Your task to perform on an android device: Open accessibility settings Image 0: 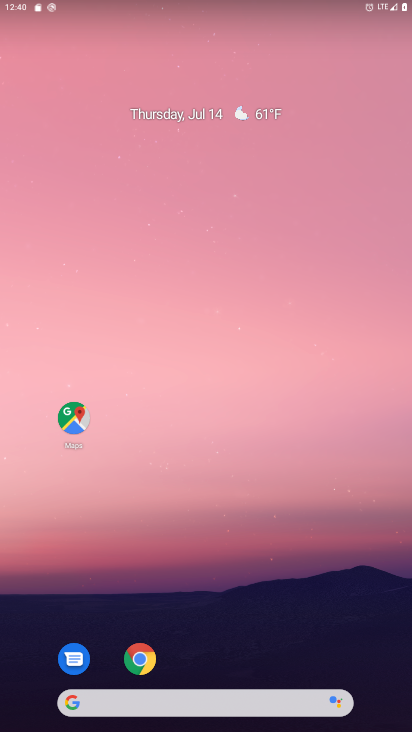
Step 0: drag from (240, 626) to (283, 79)
Your task to perform on an android device: Open accessibility settings Image 1: 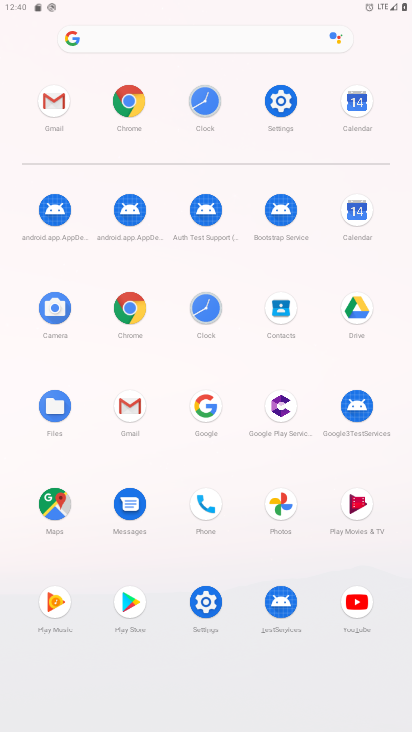
Step 1: click (203, 606)
Your task to perform on an android device: Open accessibility settings Image 2: 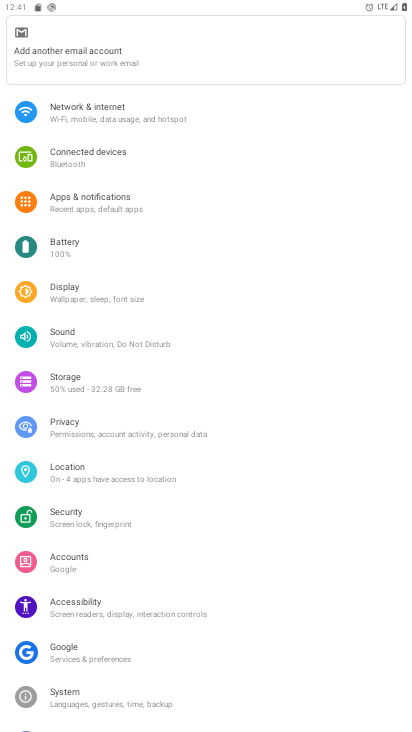
Step 2: click (114, 600)
Your task to perform on an android device: Open accessibility settings Image 3: 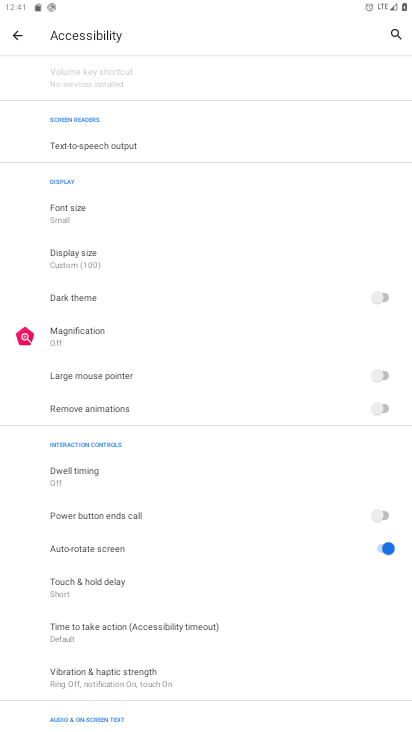
Step 3: task complete